Your task to perform on an android device: search for starred emails in the gmail app Image 0: 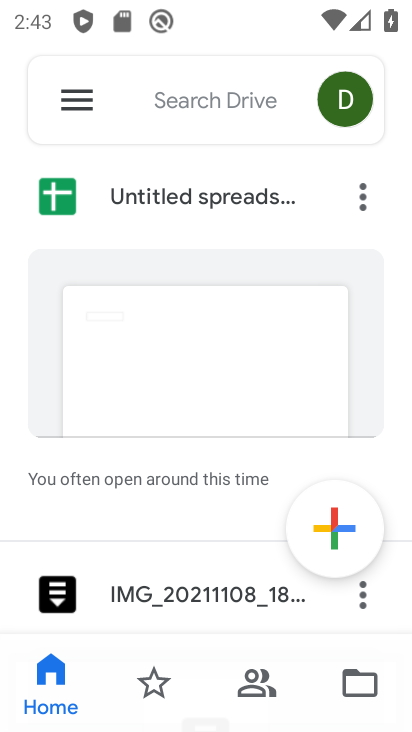
Step 0: press home button
Your task to perform on an android device: search for starred emails in the gmail app Image 1: 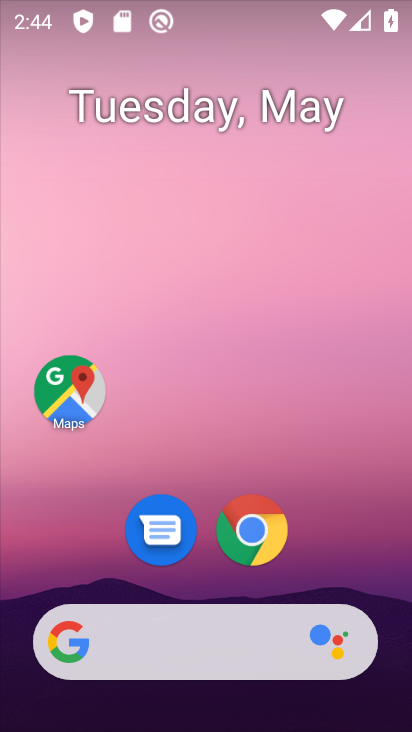
Step 1: drag from (47, 419) to (130, 175)
Your task to perform on an android device: search for starred emails in the gmail app Image 2: 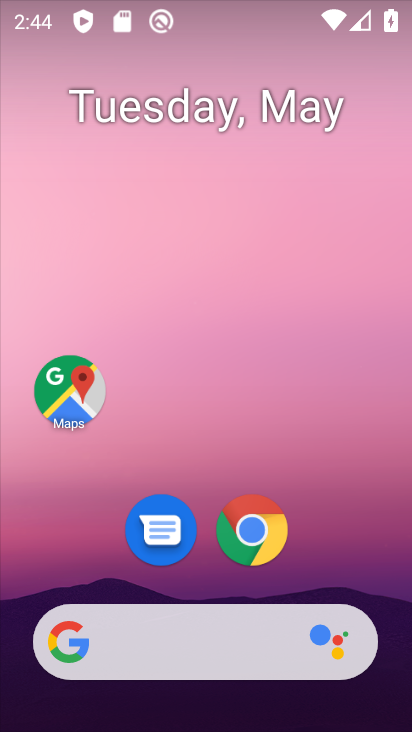
Step 2: drag from (16, 502) to (223, 160)
Your task to perform on an android device: search for starred emails in the gmail app Image 3: 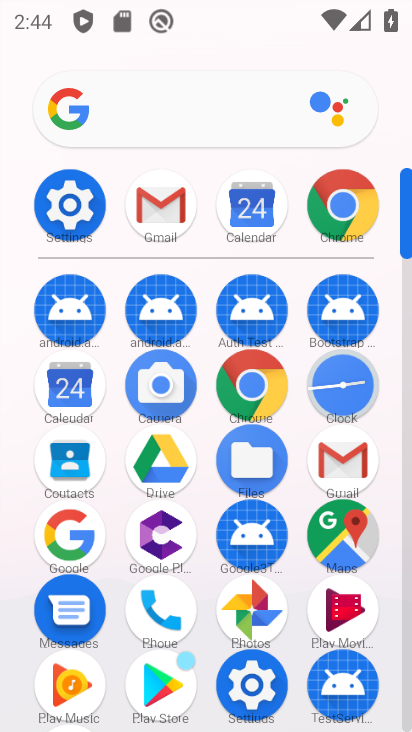
Step 3: click (192, 219)
Your task to perform on an android device: search for starred emails in the gmail app Image 4: 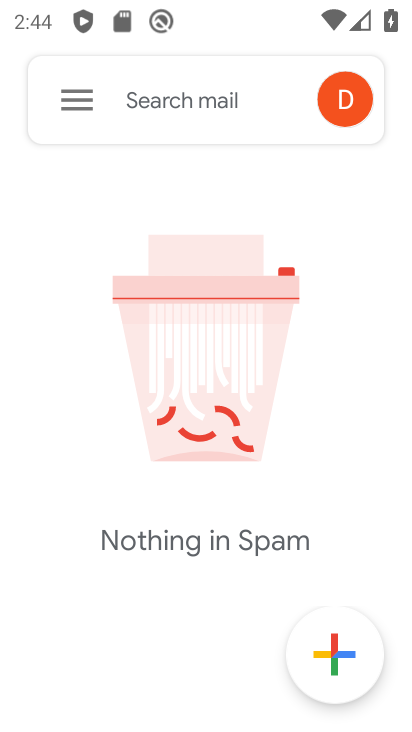
Step 4: click (64, 96)
Your task to perform on an android device: search for starred emails in the gmail app Image 5: 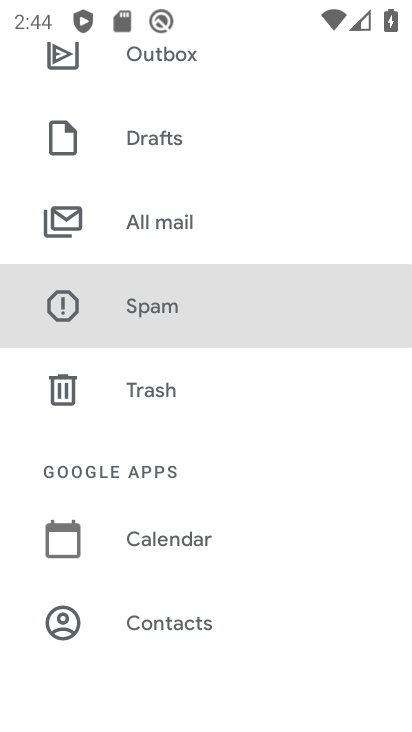
Step 5: drag from (103, 177) to (105, 673)
Your task to perform on an android device: search for starred emails in the gmail app Image 6: 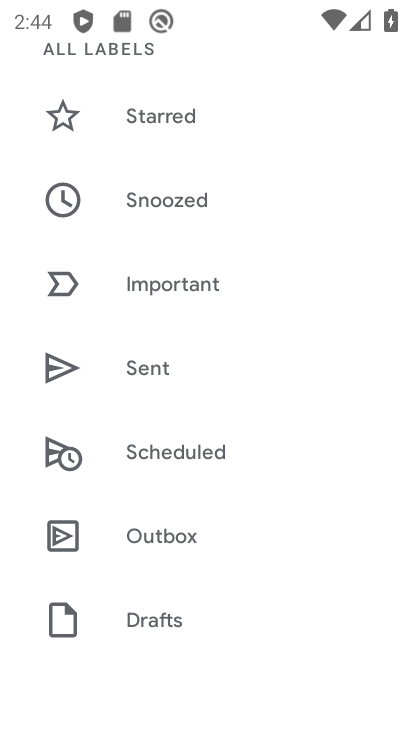
Step 6: click (153, 120)
Your task to perform on an android device: search for starred emails in the gmail app Image 7: 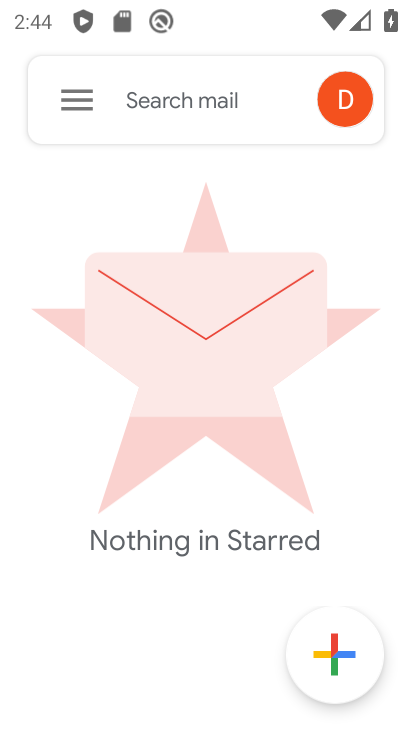
Step 7: task complete